Your task to perform on an android device: Open Wikipedia Image 0: 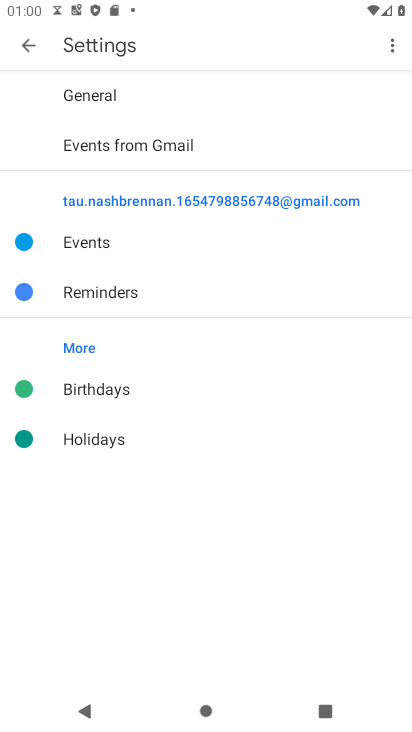
Step 0: press back button
Your task to perform on an android device: Open Wikipedia Image 1: 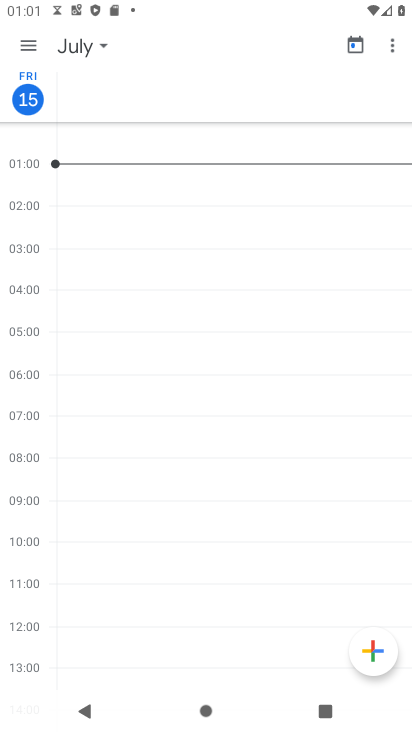
Step 1: press back button
Your task to perform on an android device: Open Wikipedia Image 2: 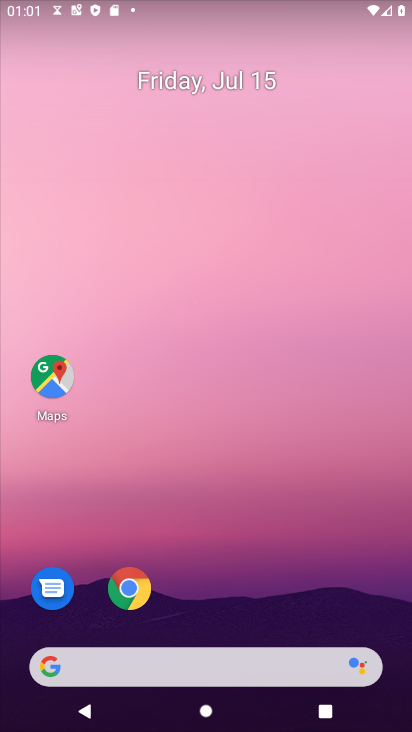
Step 2: click (126, 580)
Your task to perform on an android device: Open Wikipedia Image 3: 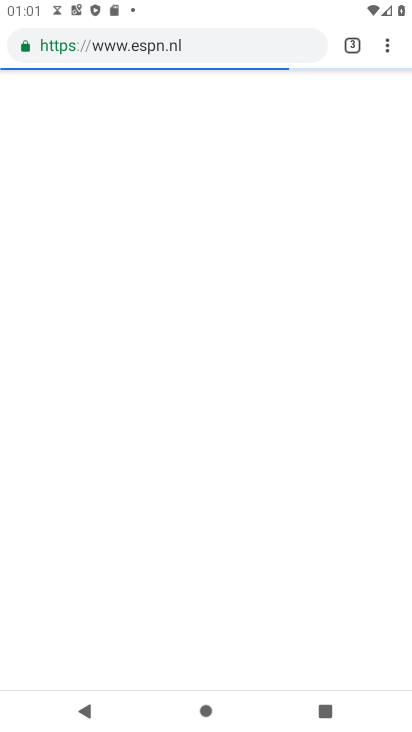
Step 3: click (351, 43)
Your task to perform on an android device: Open Wikipedia Image 4: 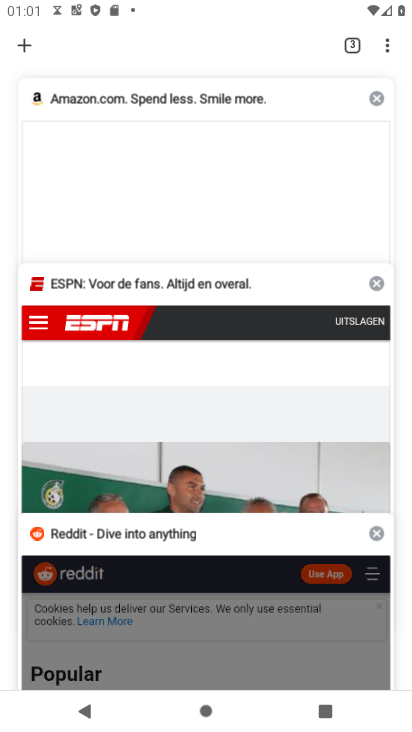
Step 4: click (22, 44)
Your task to perform on an android device: Open Wikipedia Image 5: 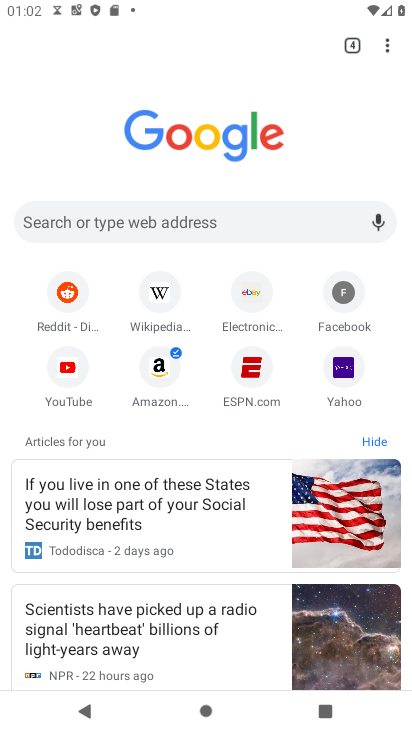
Step 5: click (166, 314)
Your task to perform on an android device: Open Wikipedia Image 6: 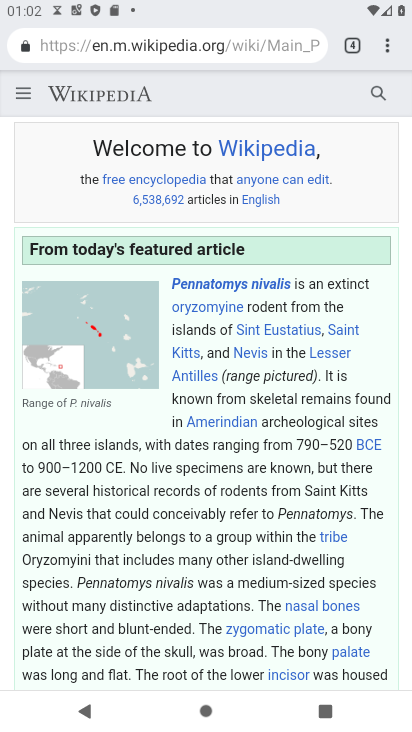
Step 6: task complete